Your task to perform on an android device: Go to Google maps Image 0: 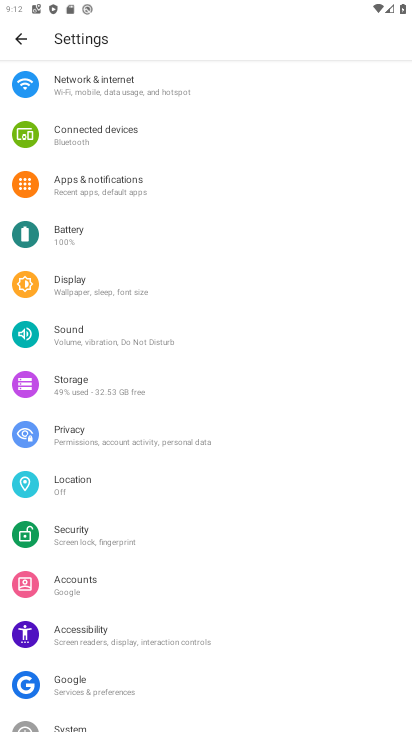
Step 0: drag from (194, 454) to (199, 196)
Your task to perform on an android device: Go to Google maps Image 1: 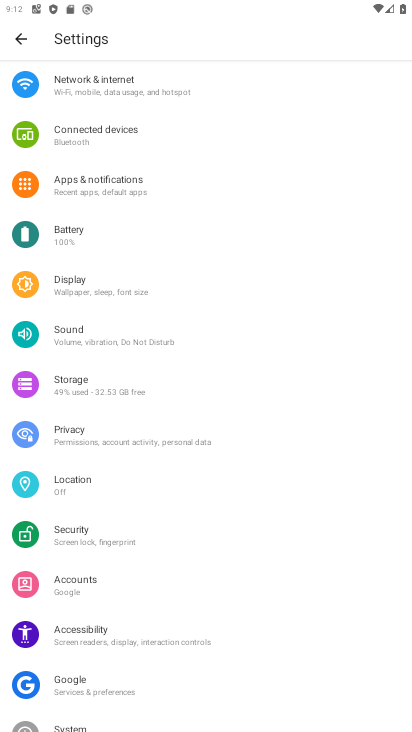
Step 1: press home button
Your task to perform on an android device: Go to Google maps Image 2: 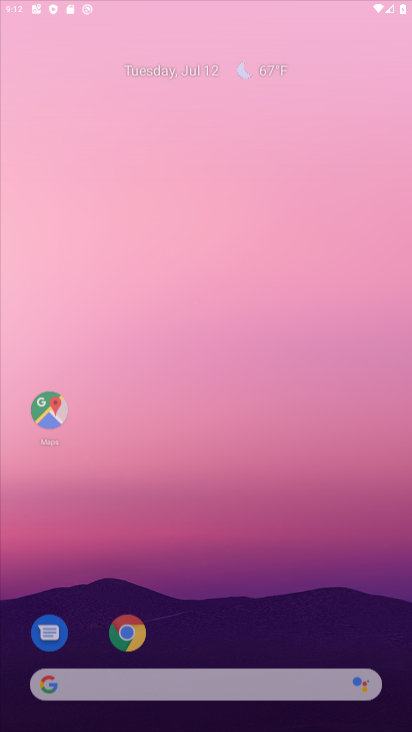
Step 2: drag from (218, 611) to (401, 0)
Your task to perform on an android device: Go to Google maps Image 3: 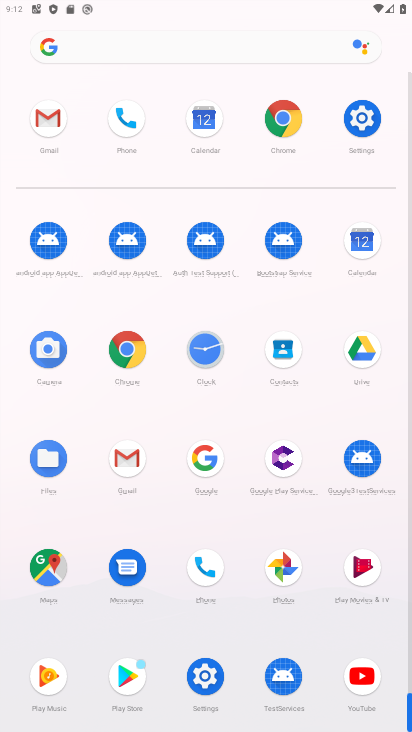
Step 3: click (54, 560)
Your task to perform on an android device: Go to Google maps Image 4: 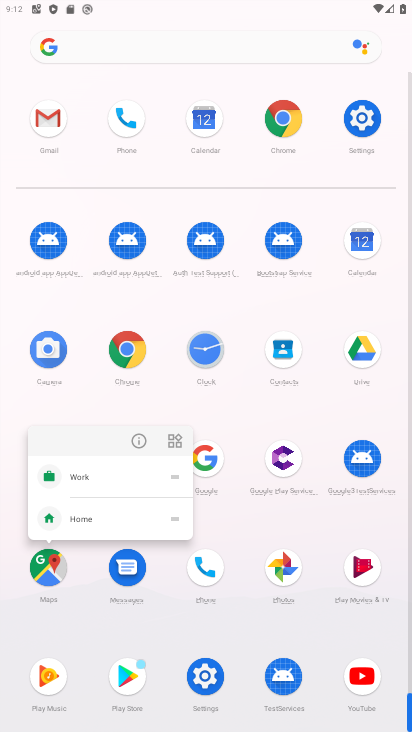
Step 4: click (133, 440)
Your task to perform on an android device: Go to Google maps Image 5: 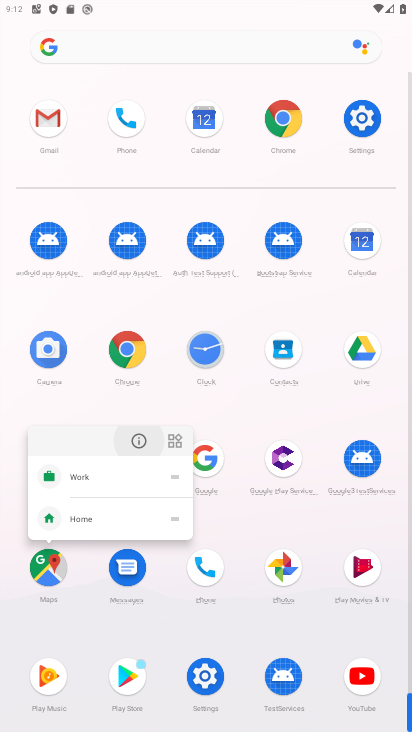
Step 5: click (133, 440)
Your task to perform on an android device: Go to Google maps Image 6: 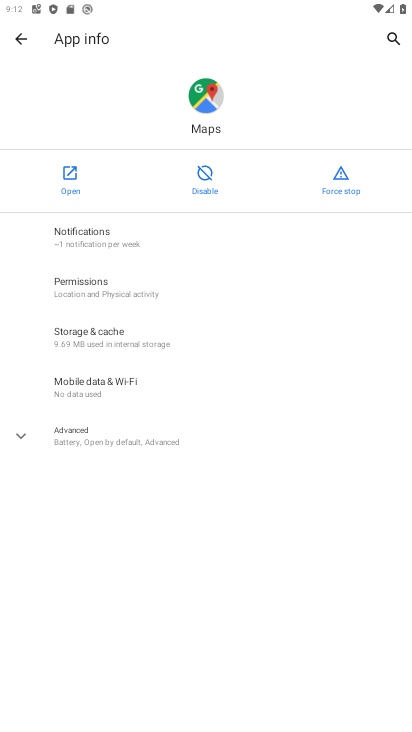
Step 6: click (68, 178)
Your task to perform on an android device: Go to Google maps Image 7: 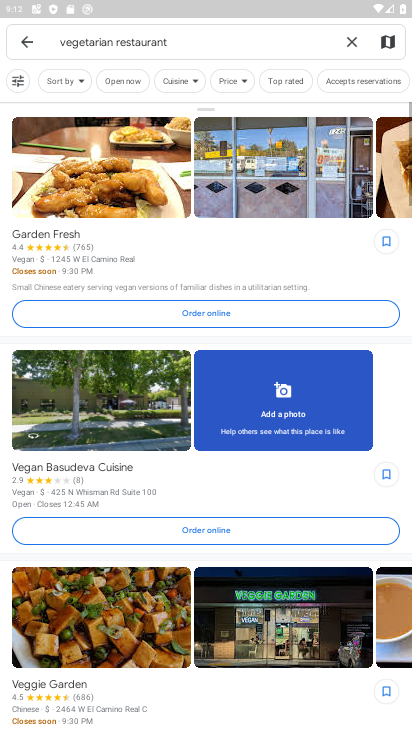
Step 7: drag from (141, 451) to (289, 80)
Your task to perform on an android device: Go to Google maps Image 8: 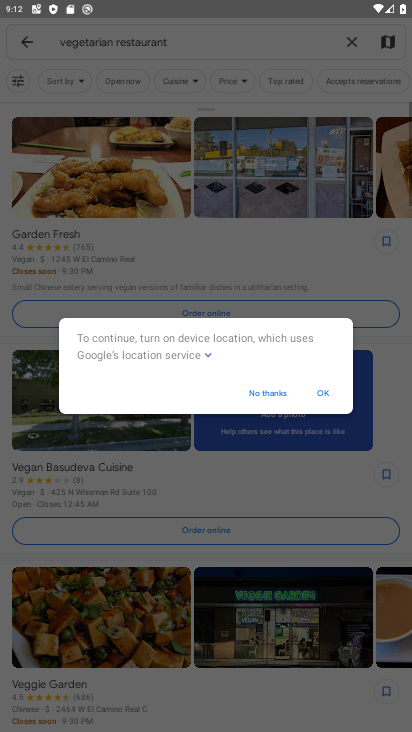
Step 8: click (240, 257)
Your task to perform on an android device: Go to Google maps Image 9: 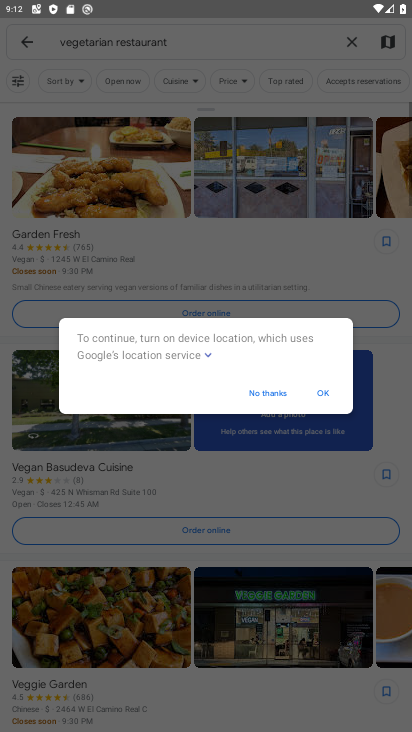
Step 9: drag from (233, 251) to (251, 544)
Your task to perform on an android device: Go to Google maps Image 10: 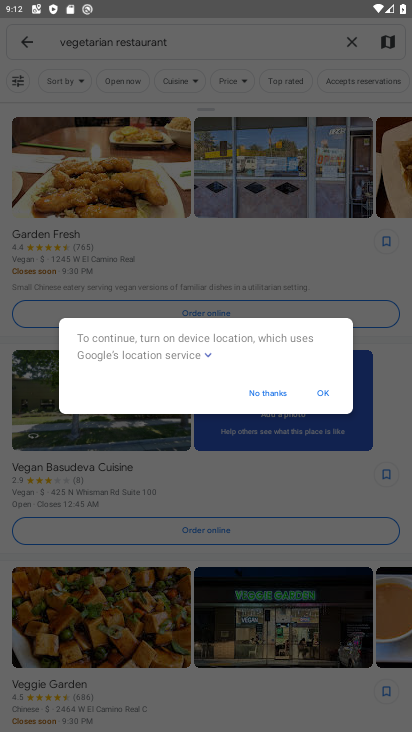
Step 10: click (320, 393)
Your task to perform on an android device: Go to Google maps Image 11: 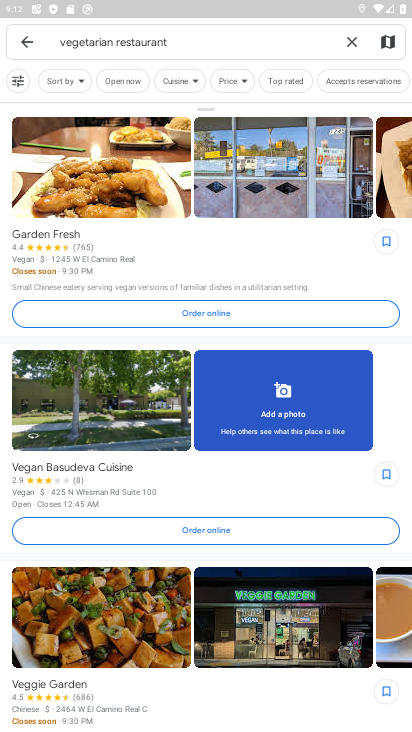
Step 11: task complete